Your task to perform on an android device: Search for the best-rated coffee table on Crate & Barrel Image 0: 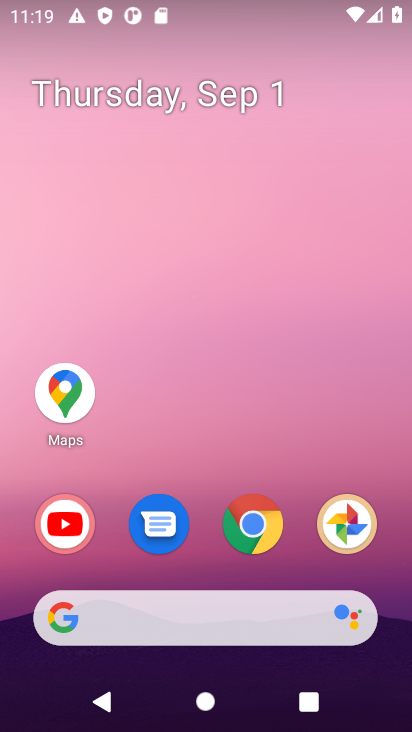
Step 0: click (255, 517)
Your task to perform on an android device: Search for the best-rated coffee table on Crate & Barrel Image 1: 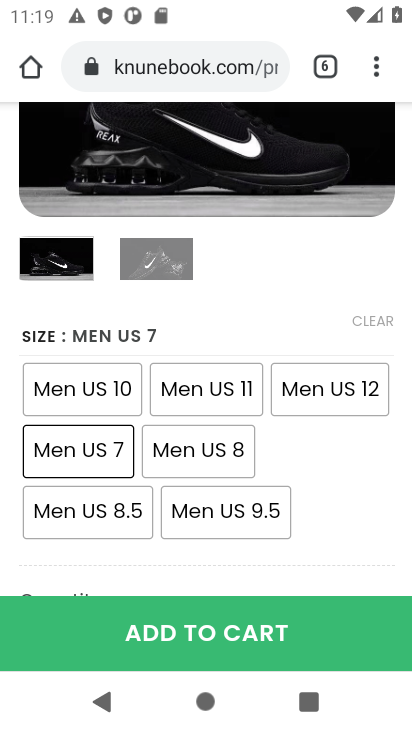
Step 1: click (330, 74)
Your task to perform on an android device: Search for the best-rated coffee table on Crate & Barrel Image 2: 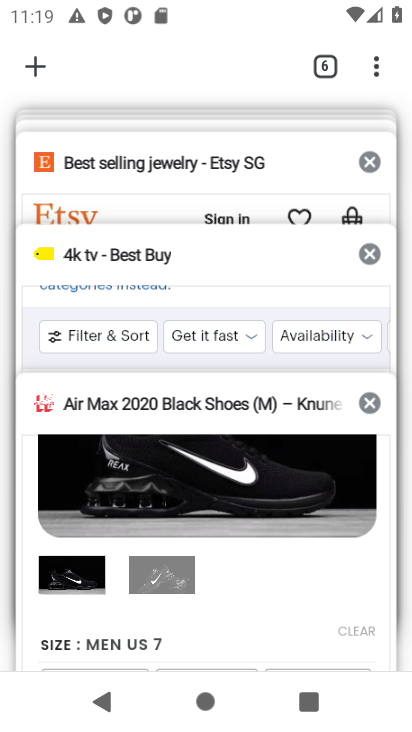
Step 2: click (34, 69)
Your task to perform on an android device: Search for the best-rated coffee table on Crate & Barrel Image 3: 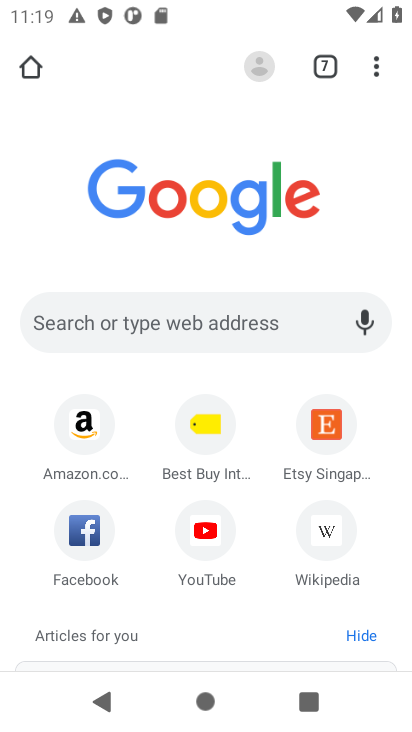
Step 3: click (106, 327)
Your task to perform on an android device: Search for the best-rated coffee table on Crate & Barrel Image 4: 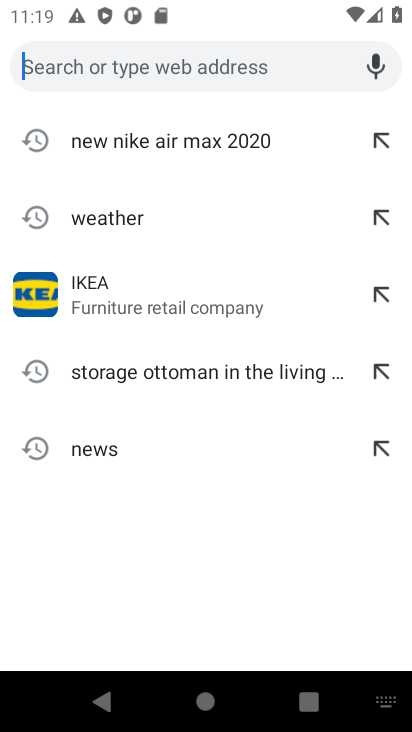
Step 4: type "Crate & Barrel"
Your task to perform on an android device: Search for the best-rated coffee table on Crate & Barrel Image 5: 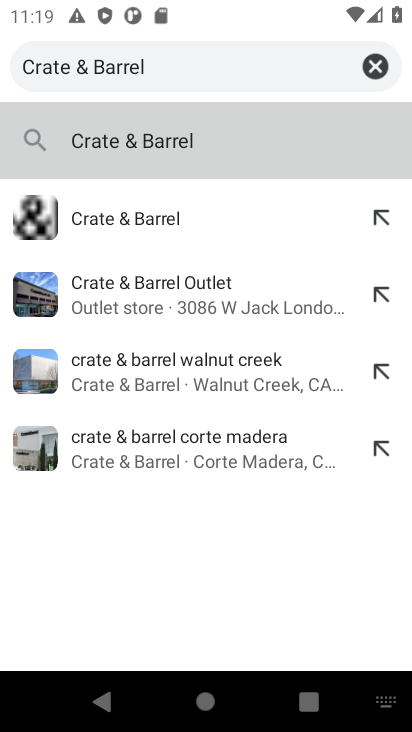
Step 5: click (226, 130)
Your task to perform on an android device: Search for the best-rated coffee table on Crate & Barrel Image 6: 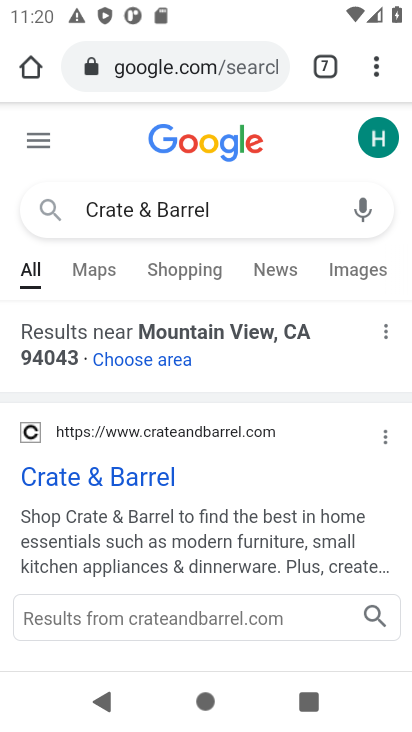
Step 6: click (112, 475)
Your task to perform on an android device: Search for the best-rated coffee table on Crate & Barrel Image 7: 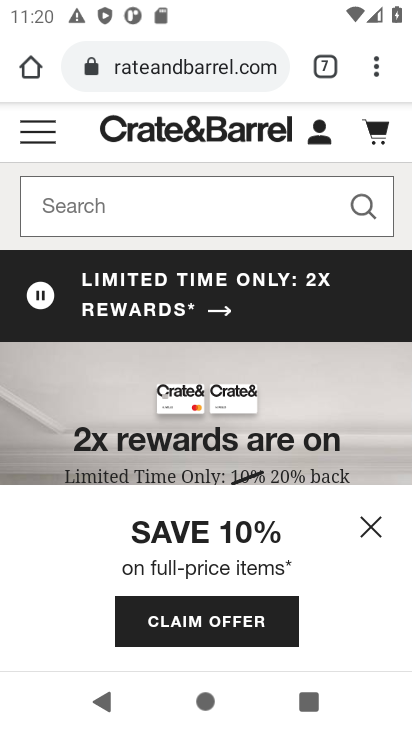
Step 7: click (160, 208)
Your task to perform on an android device: Search for the best-rated coffee table on Crate & Barrel Image 8: 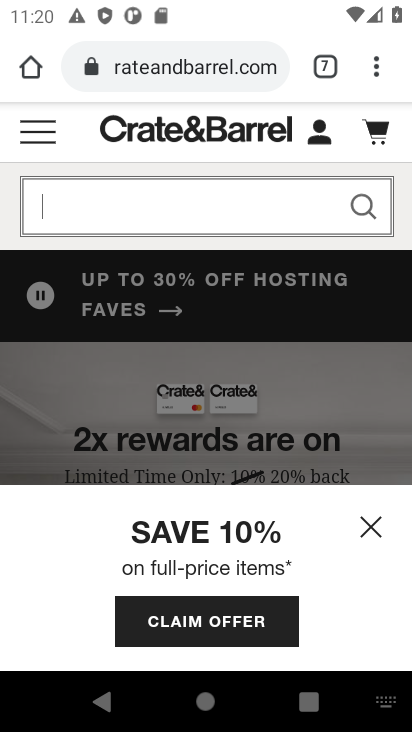
Step 8: type "best-rated coffee table"
Your task to perform on an android device: Search for the best-rated coffee table on Crate & Barrel Image 9: 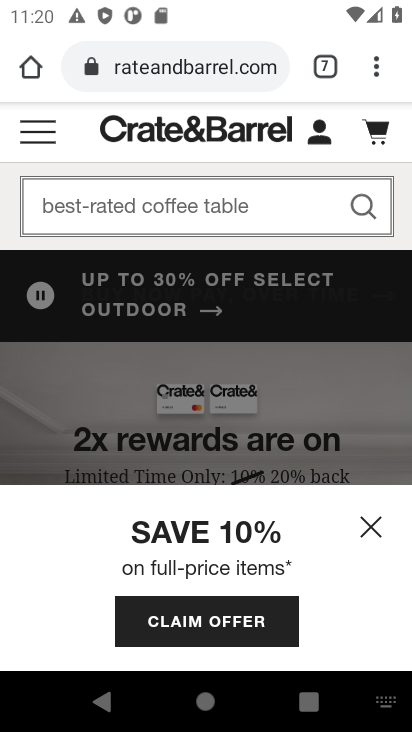
Step 9: click (363, 206)
Your task to perform on an android device: Search for the best-rated coffee table on Crate & Barrel Image 10: 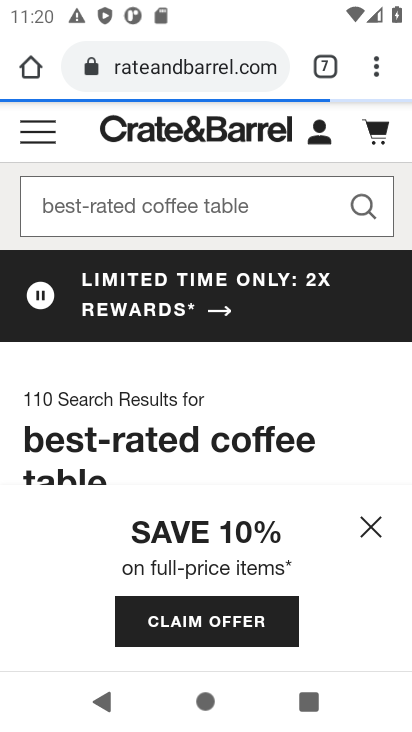
Step 10: drag from (345, 591) to (265, 183)
Your task to perform on an android device: Search for the best-rated coffee table on Crate & Barrel Image 11: 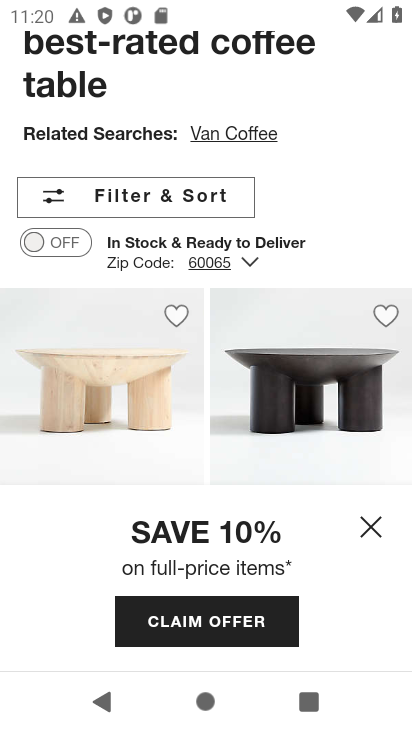
Step 11: click (377, 534)
Your task to perform on an android device: Search for the best-rated coffee table on Crate & Barrel Image 12: 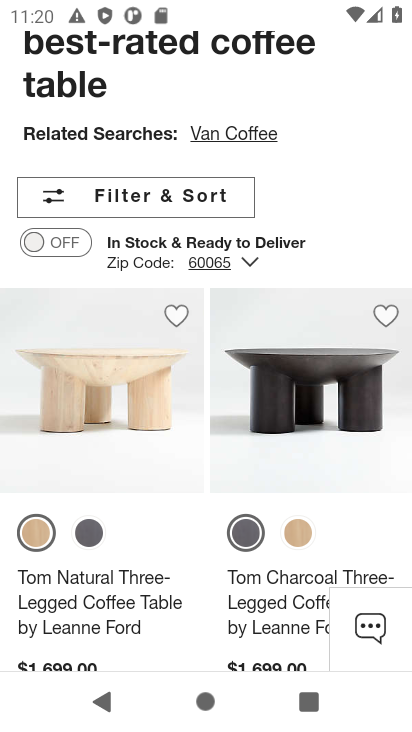
Step 12: task complete